Your task to perform on an android device: Clear the cart on walmart. Search for "razer nari" on walmart, select the first entry, and add it to the cart. Image 0: 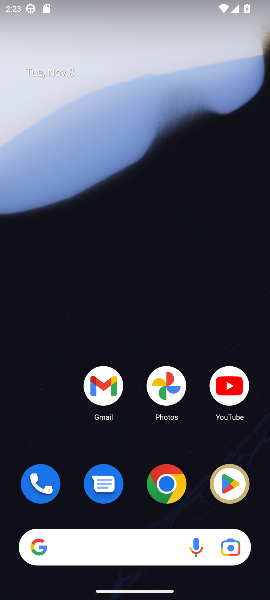
Step 0: click (174, 474)
Your task to perform on an android device: Clear the cart on walmart. Search for "razer nari" on walmart, select the first entry, and add it to the cart. Image 1: 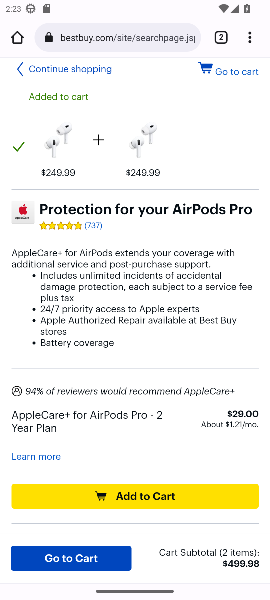
Step 1: click (140, 38)
Your task to perform on an android device: Clear the cart on walmart. Search for "razer nari" on walmart, select the first entry, and add it to the cart. Image 2: 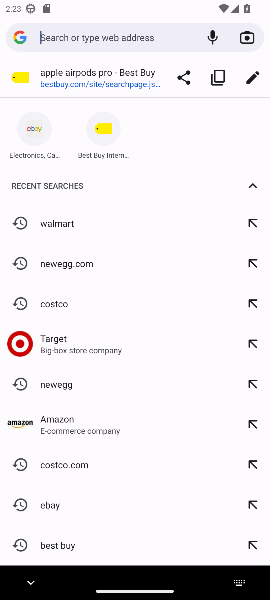
Step 2: click (67, 221)
Your task to perform on an android device: Clear the cart on walmart. Search for "razer nari" on walmart, select the first entry, and add it to the cart. Image 3: 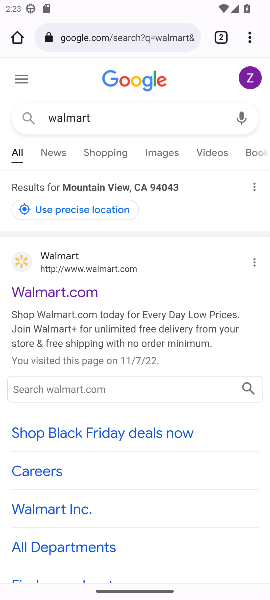
Step 3: click (19, 298)
Your task to perform on an android device: Clear the cart on walmart. Search for "razer nari" on walmart, select the first entry, and add it to the cart. Image 4: 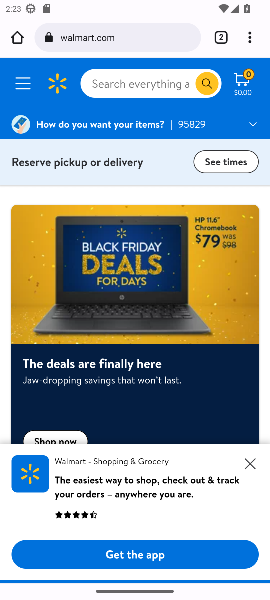
Step 4: click (234, 84)
Your task to perform on an android device: Clear the cart on walmart. Search for "razer nari" on walmart, select the first entry, and add it to the cart. Image 5: 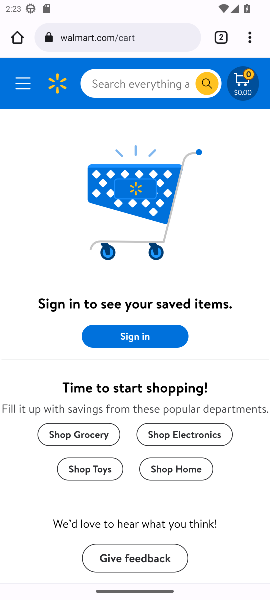
Step 5: click (133, 84)
Your task to perform on an android device: Clear the cart on walmart. Search for "razer nari" on walmart, select the first entry, and add it to the cart. Image 6: 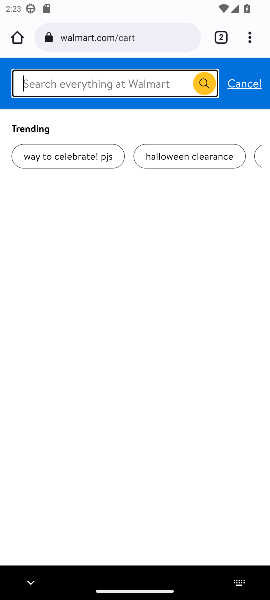
Step 6: type "razer nari"
Your task to perform on an android device: Clear the cart on walmart. Search for "razer nari" on walmart, select the first entry, and add it to the cart. Image 7: 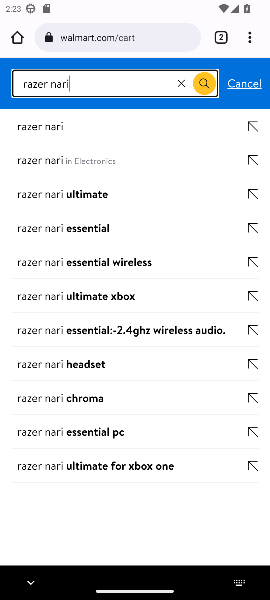
Step 7: click (206, 84)
Your task to perform on an android device: Clear the cart on walmart. Search for "razer nari" on walmart, select the first entry, and add it to the cart. Image 8: 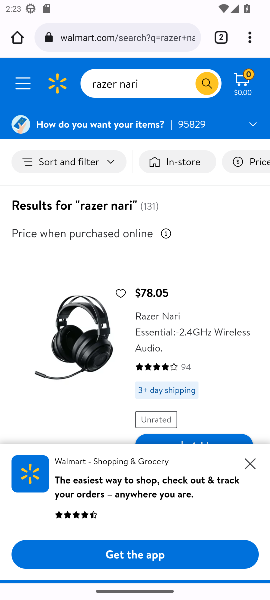
Step 8: click (247, 460)
Your task to perform on an android device: Clear the cart on walmart. Search for "razer nari" on walmart, select the first entry, and add it to the cart. Image 9: 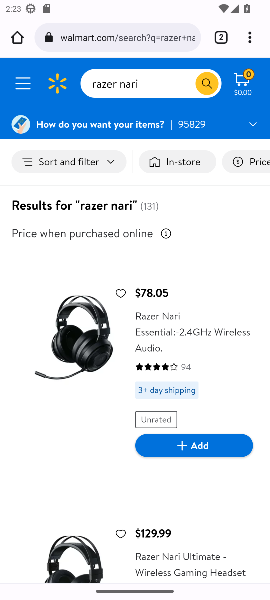
Step 9: click (202, 450)
Your task to perform on an android device: Clear the cart on walmart. Search for "razer nari" on walmart, select the first entry, and add it to the cart. Image 10: 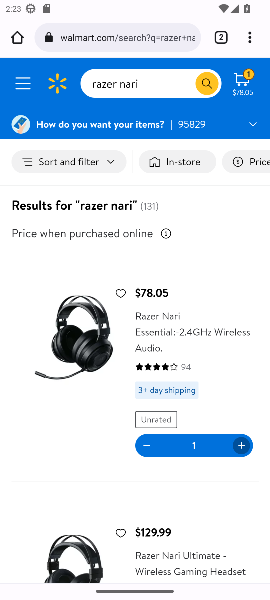
Step 10: task complete